Your task to perform on an android device: open device folders in google photos Image 0: 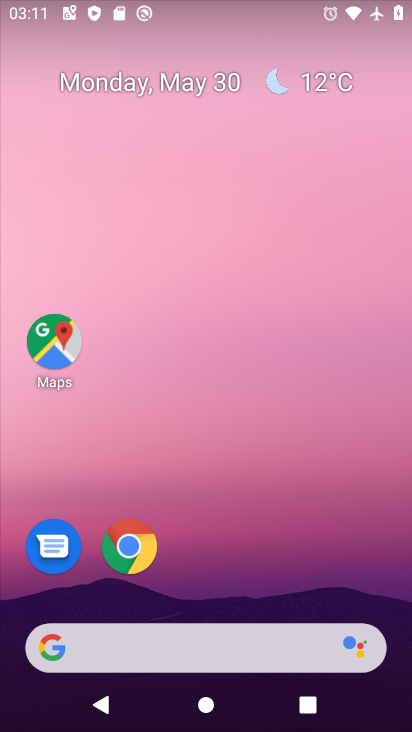
Step 0: press home button
Your task to perform on an android device: open device folders in google photos Image 1: 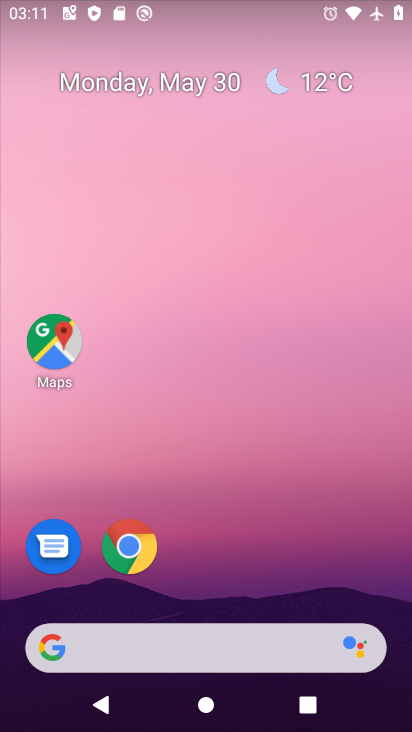
Step 1: drag from (223, 603) to (222, 91)
Your task to perform on an android device: open device folders in google photos Image 2: 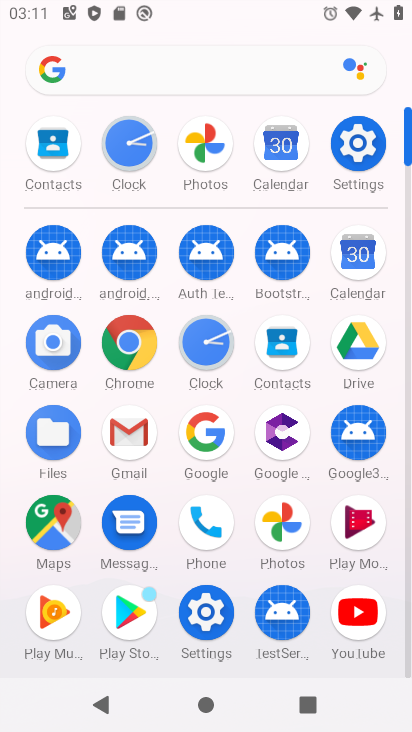
Step 2: click (281, 516)
Your task to perform on an android device: open device folders in google photos Image 3: 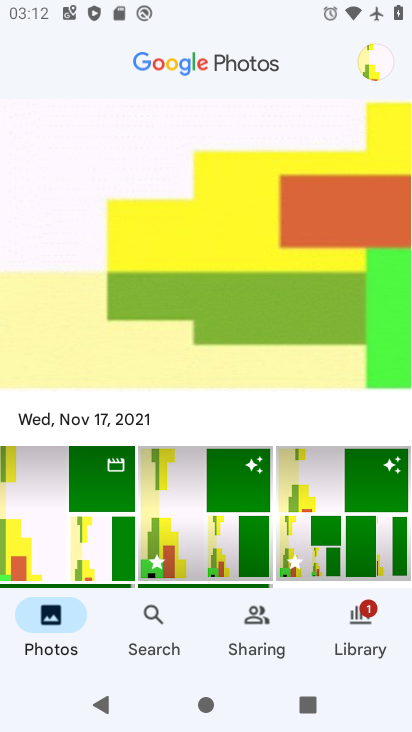
Step 3: click (372, 58)
Your task to perform on an android device: open device folders in google photos Image 4: 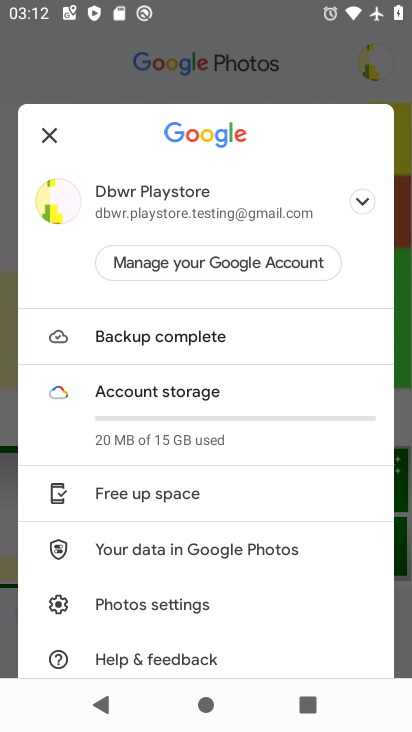
Step 4: task complete